Your task to perform on an android device: Do I have any events this weekend? Image 0: 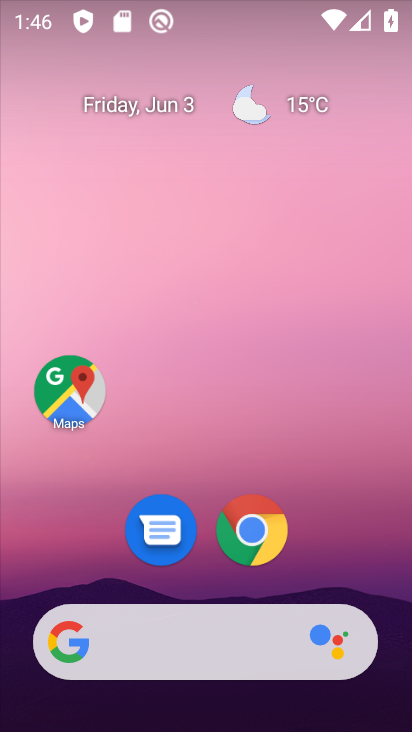
Step 0: drag from (286, 492) to (259, 188)
Your task to perform on an android device: Do I have any events this weekend? Image 1: 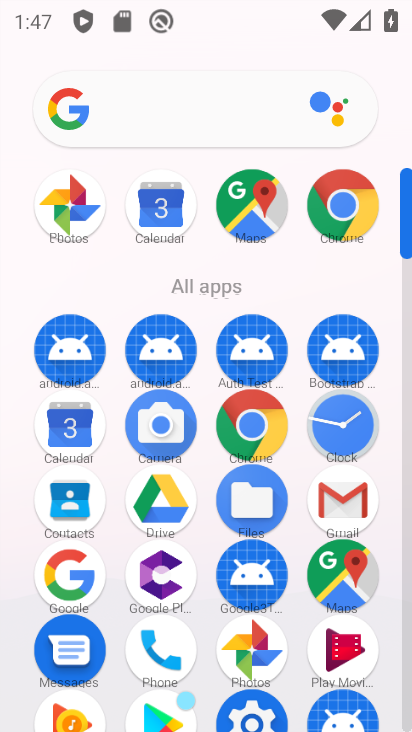
Step 1: click (68, 449)
Your task to perform on an android device: Do I have any events this weekend? Image 2: 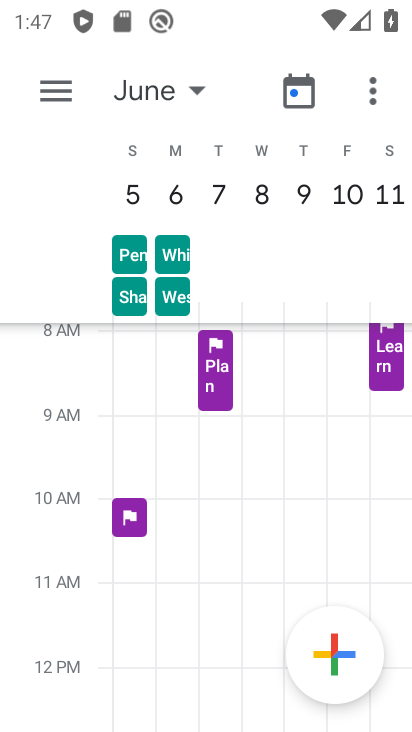
Step 2: click (138, 90)
Your task to perform on an android device: Do I have any events this weekend? Image 3: 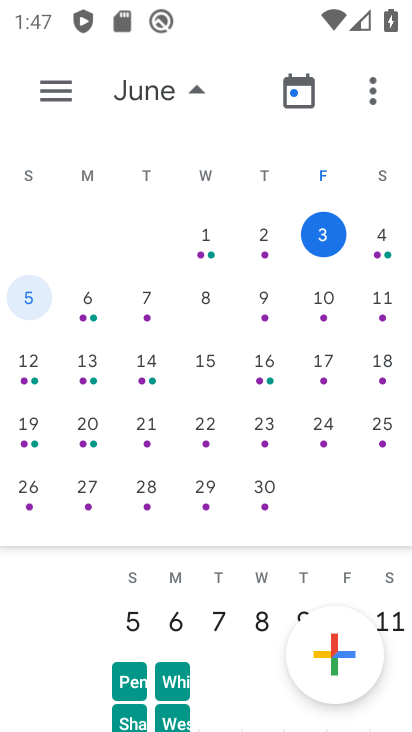
Step 3: drag from (67, 373) to (402, 341)
Your task to perform on an android device: Do I have any events this weekend? Image 4: 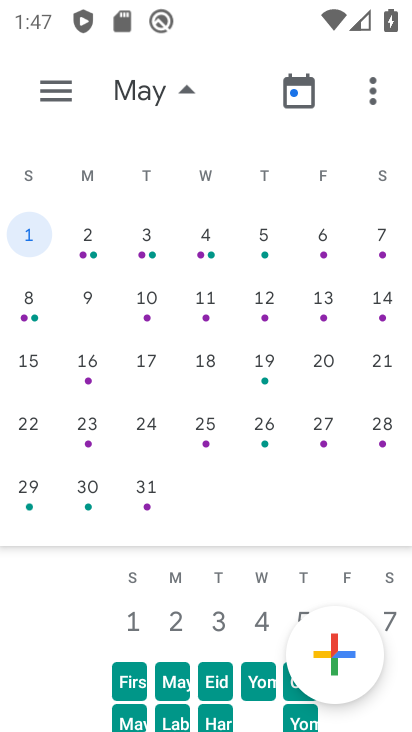
Step 4: drag from (231, 593) to (242, 387)
Your task to perform on an android device: Do I have any events this weekend? Image 5: 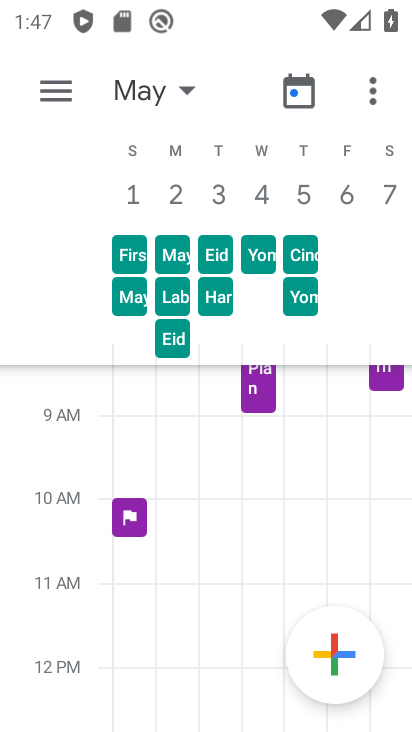
Step 5: click (159, 100)
Your task to perform on an android device: Do I have any events this weekend? Image 6: 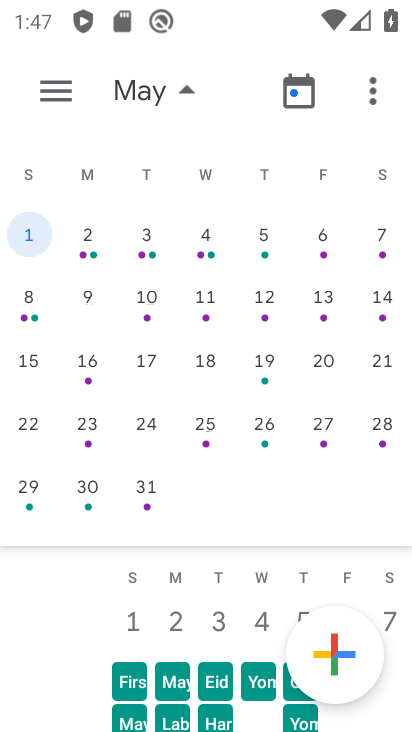
Step 6: task complete